Your task to perform on an android device: open a bookmark in the chrome app Image 0: 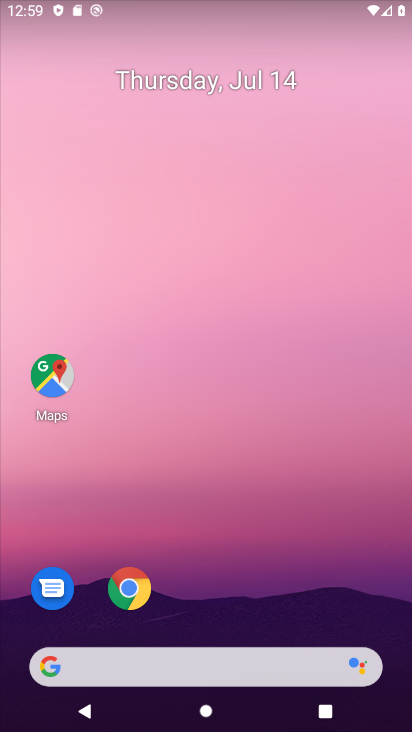
Step 0: drag from (230, 701) to (93, 11)
Your task to perform on an android device: open a bookmark in the chrome app Image 1: 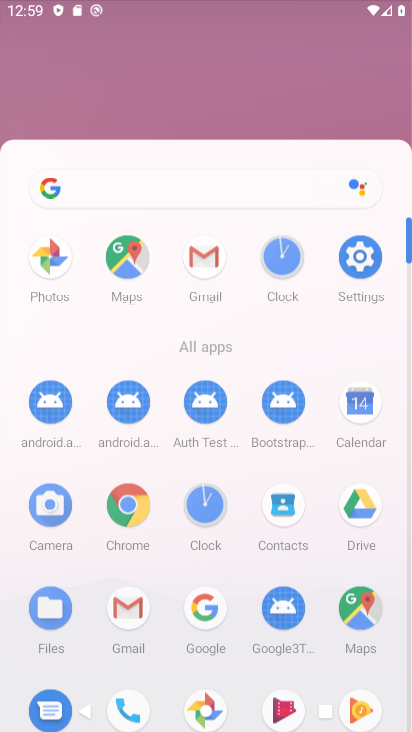
Step 1: drag from (257, 566) to (103, 24)
Your task to perform on an android device: open a bookmark in the chrome app Image 2: 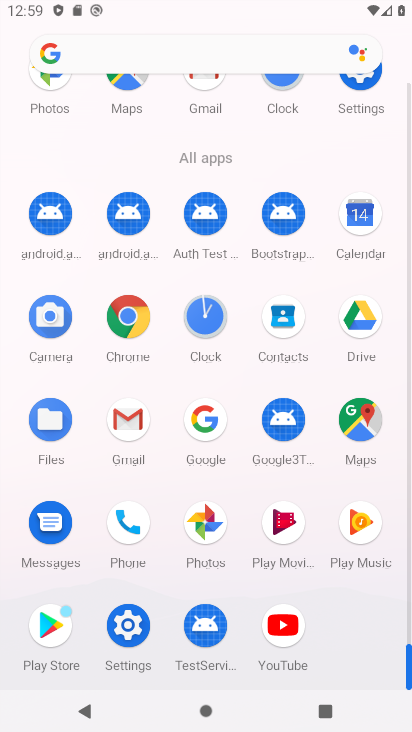
Step 2: click (118, 304)
Your task to perform on an android device: open a bookmark in the chrome app Image 3: 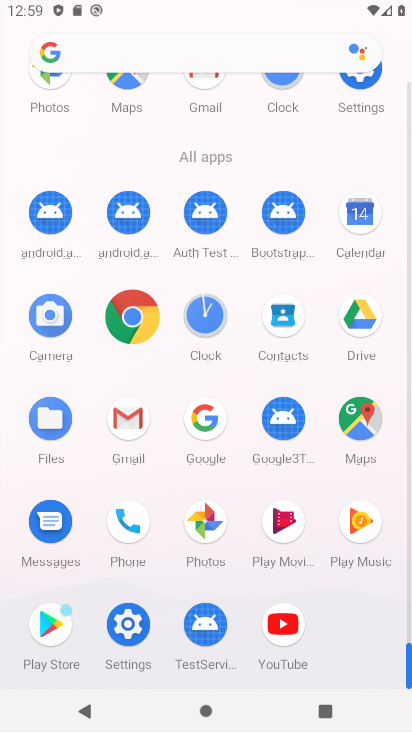
Step 3: click (116, 307)
Your task to perform on an android device: open a bookmark in the chrome app Image 4: 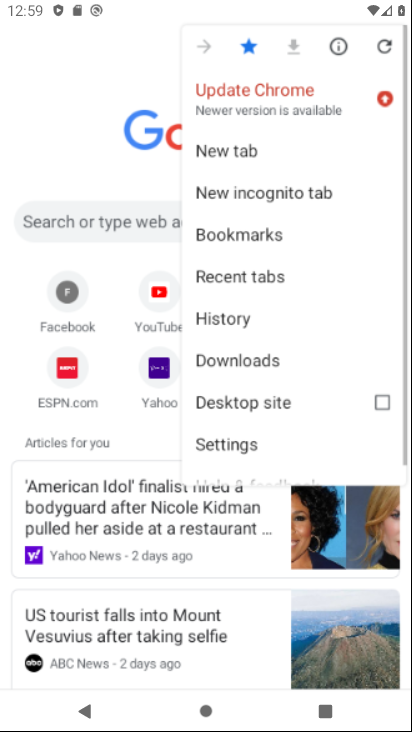
Step 4: click (118, 309)
Your task to perform on an android device: open a bookmark in the chrome app Image 5: 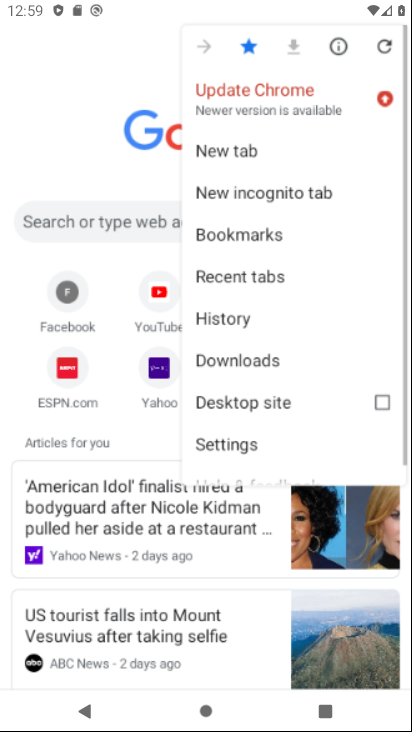
Step 5: click (119, 309)
Your task to perform on an android device: open a bookmark in the chrome app Image 6: 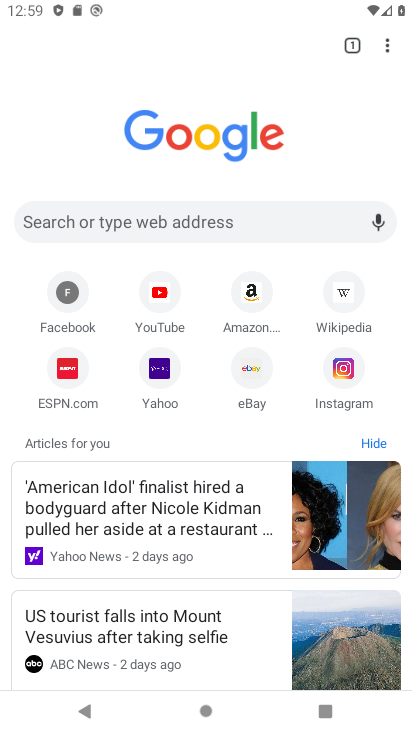
Step 6: click (119, 309)
Your task to perform on an android device: open a bookmark in the chrome app Image 7: 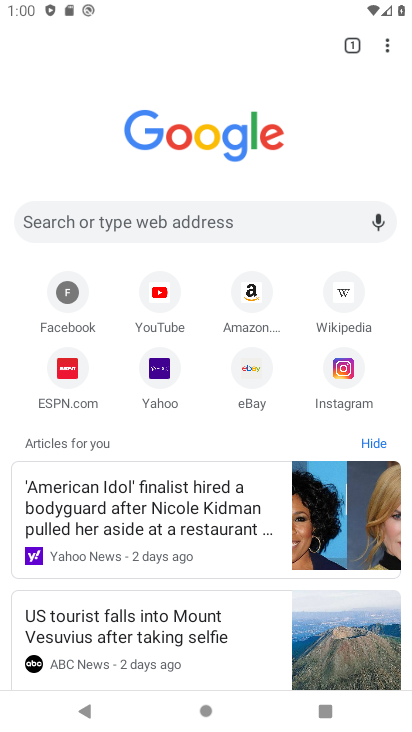
Step 7: task complete